Your task to perform on an android device: allow notifications from all sites in the chrome app Image 0: 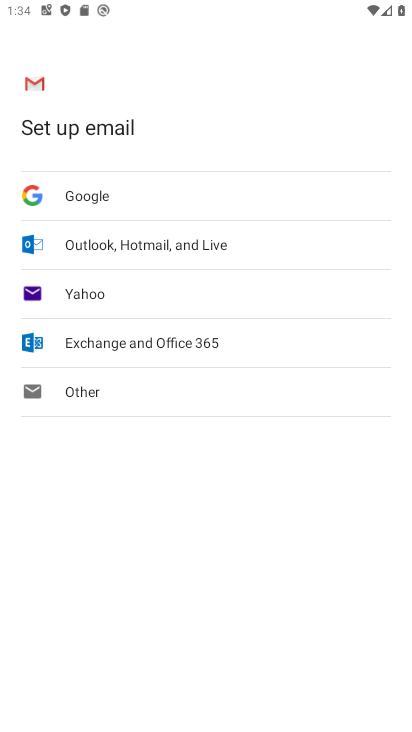
Step 0: press home button
Your task to perform on an android device: allow notifications from all sites in the chrome app Image 1: 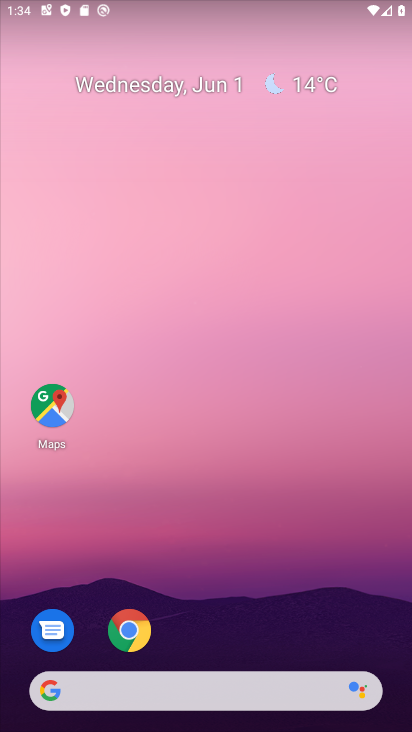
Step 1: click (124, 627)
Your task to perform on an android device: allow notifications from all sites in the chrome app Image 2: 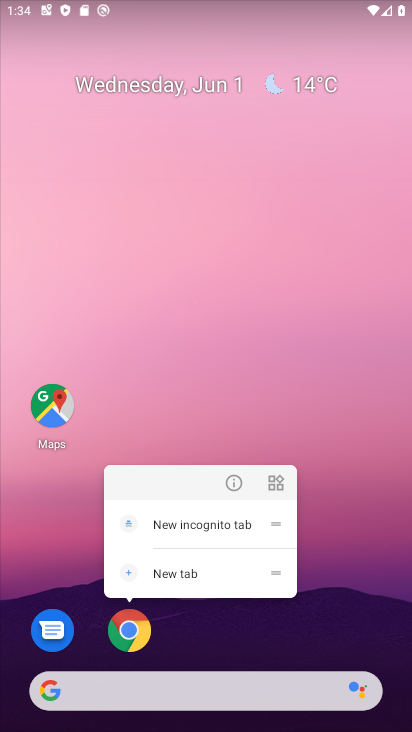
Step 2: click (125, 623)
Your task to perform on an android device: allow notifications from all sites in the chrome app Image 3: 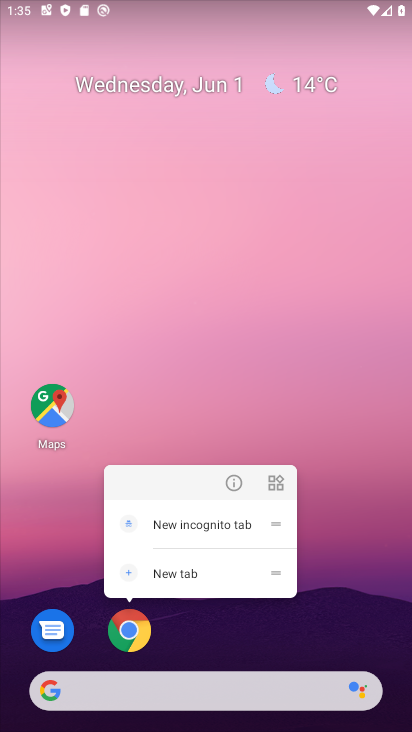
Step 3: click (126, 622)
Your task to perform on an android device: allow notifications from all sites in the chrome app Image 4: 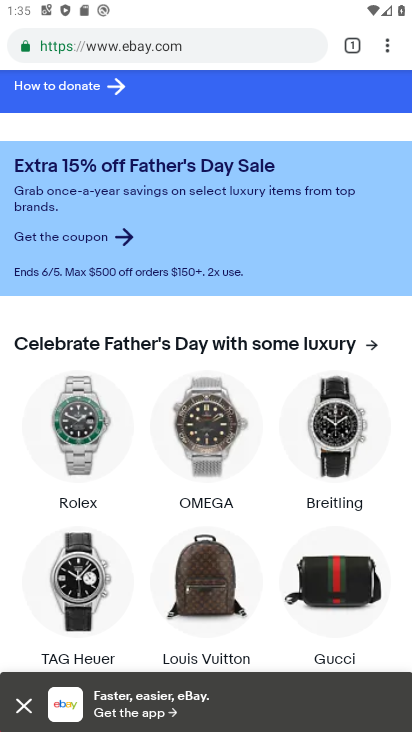
Step 4: click (387, 41)
Your task to perform on an android device: allow notifications from all sites in the chrome app Image 5: 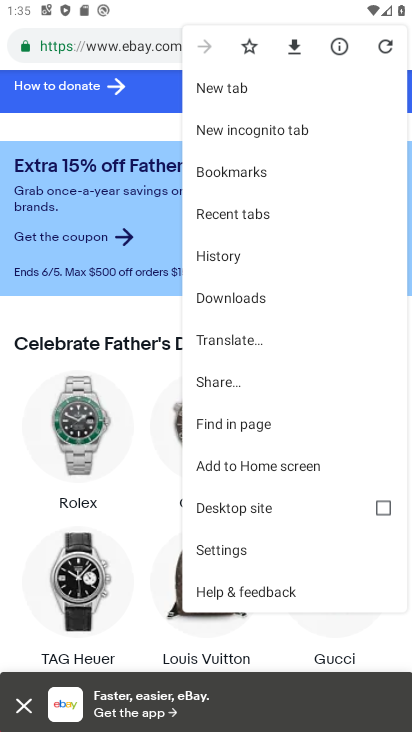
Step 5: click (254, 545)
Your task to perform on an android device: allow notifications from all sites in the chrome app Image 6: 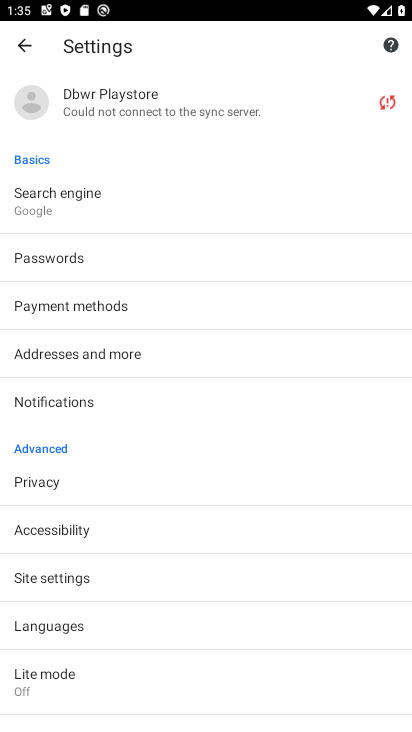
Step 6: click (98, 568)
Your task to perform on an android device: allow notifications from all sites in the chrome app Image 7: 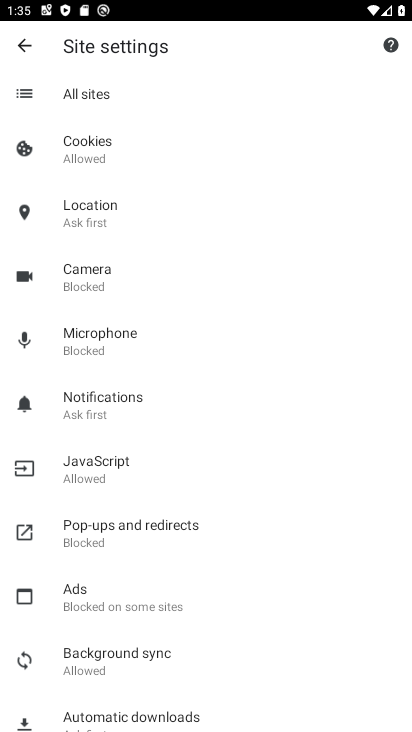
Step 7: click (120, 84)
Your task to perform on an android device: allow notifications from all sites in the chrome app Image 8: 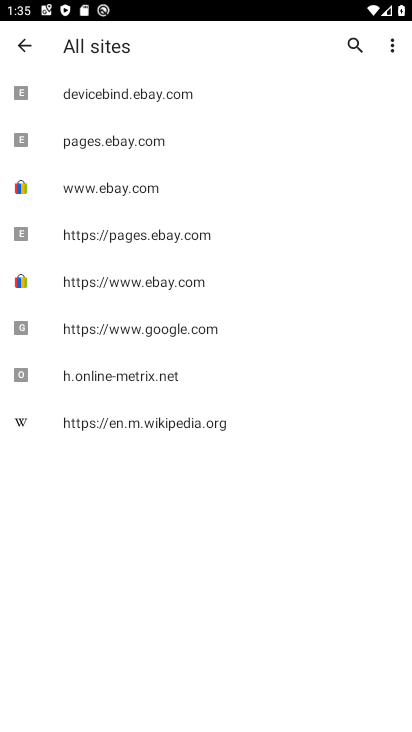
Step 8: click (214, 88)
Your task to perform on an android device: allow notifications from all sites in the chrome app Image 9: 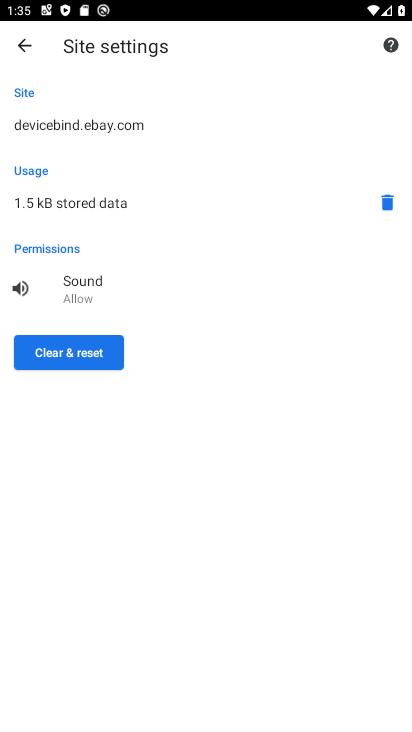
Step 9: click (19, 40)
Your task to perform on an android device: allow notifications from all sites in the chrome app Image 10: 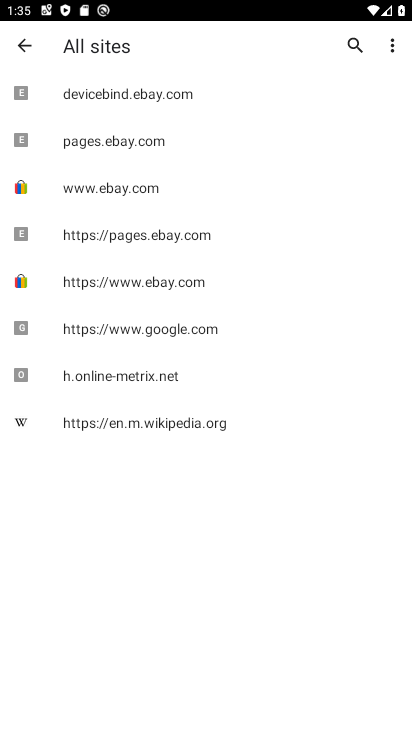
Step 10: click (51, 133)
Your task to perform on an android device: allow notifications from all sites in the chrome app Image 11: 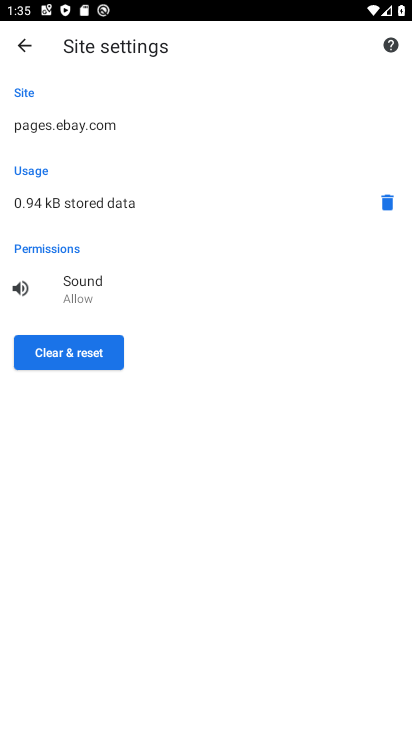
Step 11: click (20, 45)
Your task to perform on an android device: allow notifications from all sites in the chrome app Image 12: 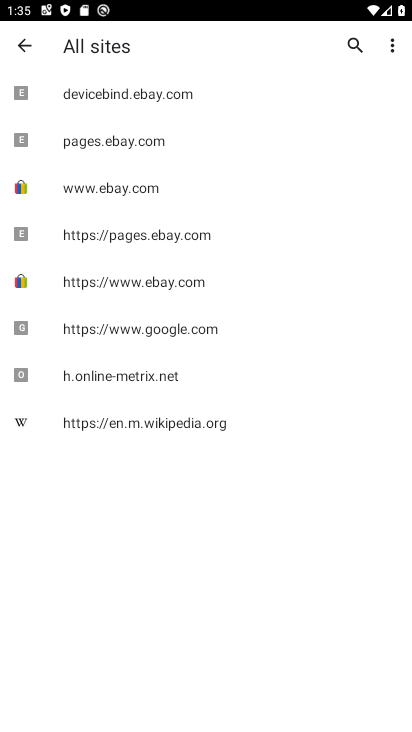
Step 12: click (162, 184)
Your task to perform on an android device: allow notifications from all sites in the chrome app Image 13: 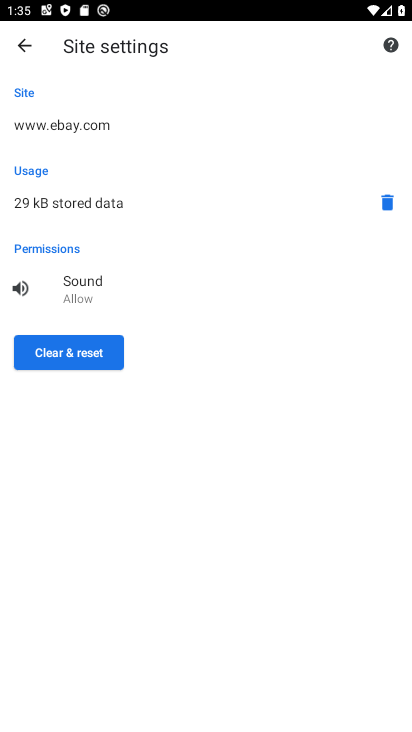
Step 13: click (31, 40)
Your task to perform on an android device: allow notifications from all sites in the chrome app Image 14: 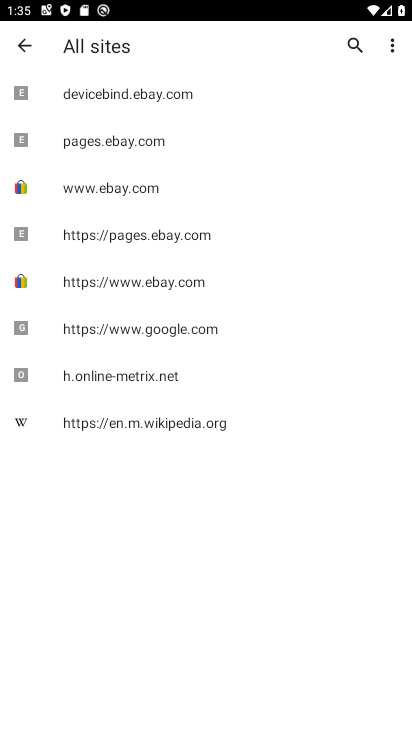
Step 14: task complete